Your task to perform on an android device: Go to Maps Image 0: 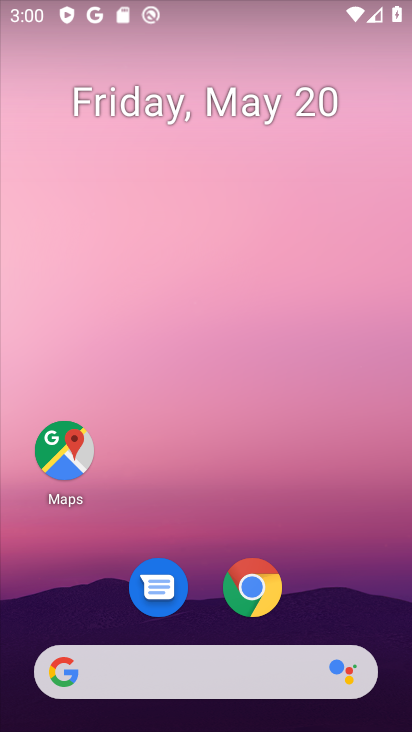
Step 0: press home button
Your task to perform on an android device: Go to Maps Image 1: 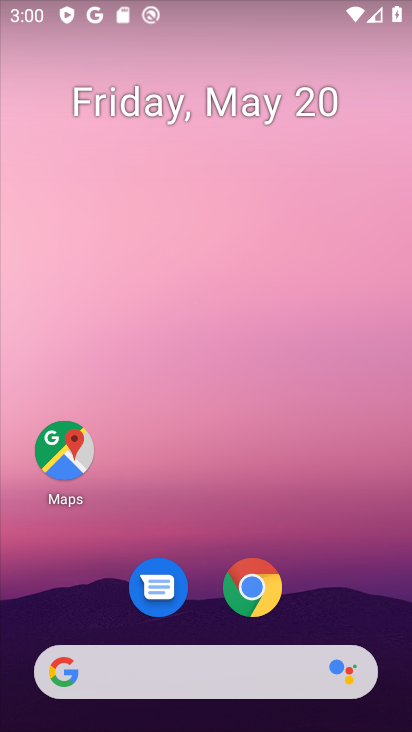
Step 1: click (61, 453)
Your task to perform on an android device: Go to Maps Image 2: 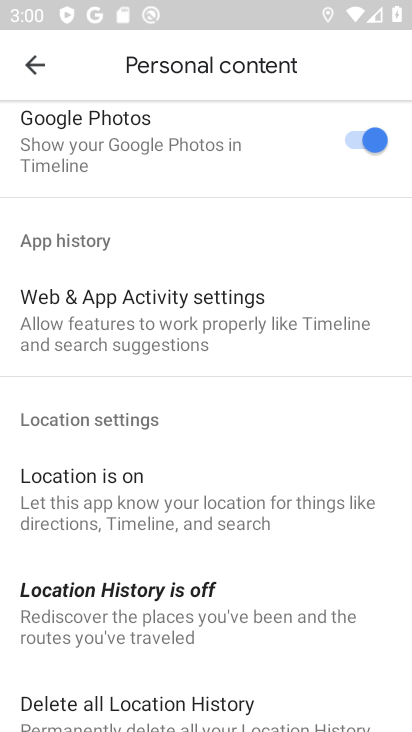
Step 2: click (44, 63)
Your task to perform on an android device: Go to Maps Image 3: 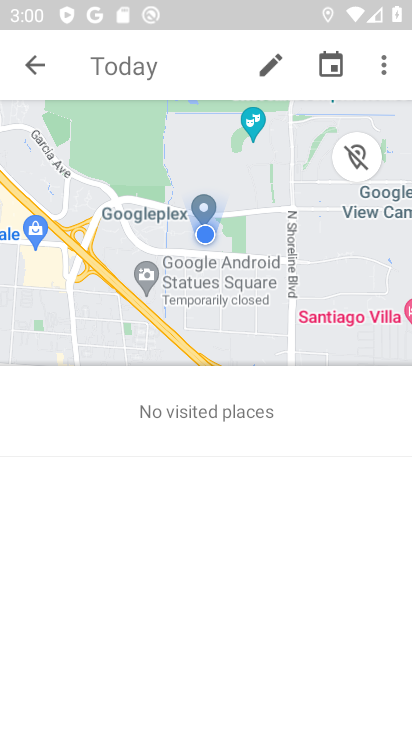
Step 3: click (44, 64)
Your task to perform on an android device: Go to Maps Image 4: 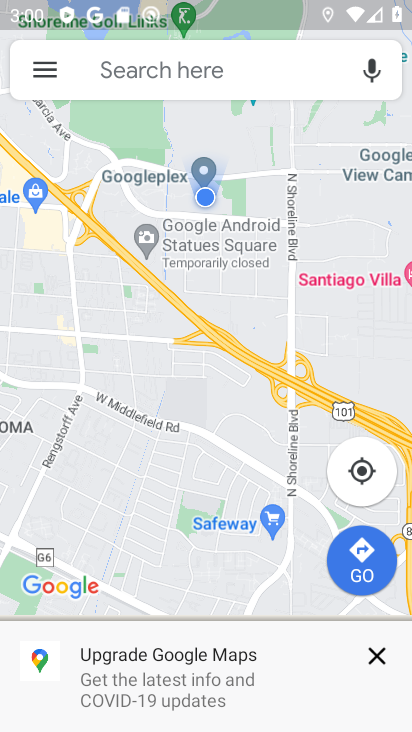
Step 4: task complete